Your task to perform on an android device: Search for the most popular books on Goodreads Image 0: 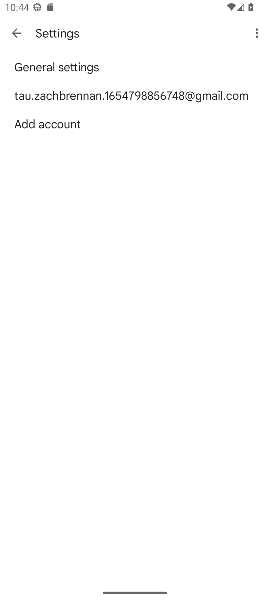
Step 0: press home button
Your task to perform on an android device: Search for the most popular books on Goodreads Image 1: 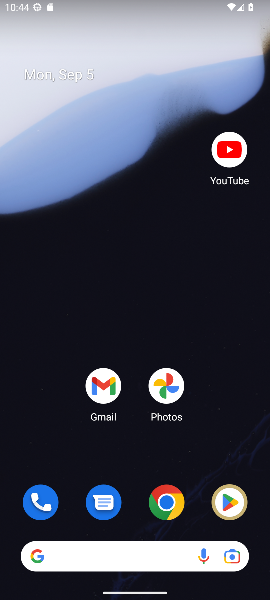
Step 1: drag from (239, 397) to (143, 17)
Your task to perform on an android device: Search for the most popular books on Goodreads Image 2: 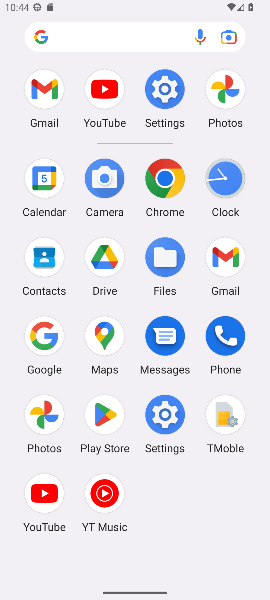
Step 2: click (39, 335)
Your task to perform on an android device: Search for the most popular books on Goodreads Image 3: 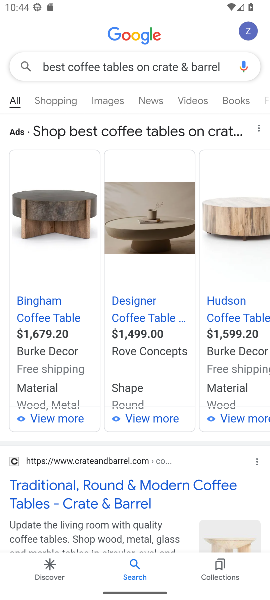
Step 3: press back button
Your task to perform on an android device: Search for the most popular books on Goodreads Image 4: 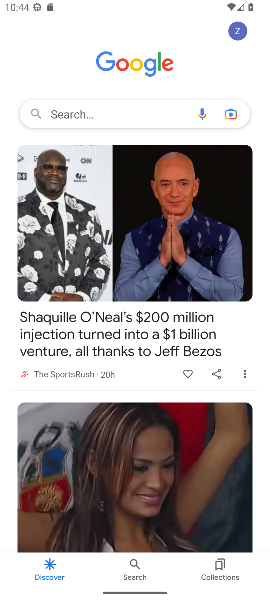
Step 4: click (114, 115)
Your task to perform on an android device: Search for the most popular books on Goodreads Image 5: 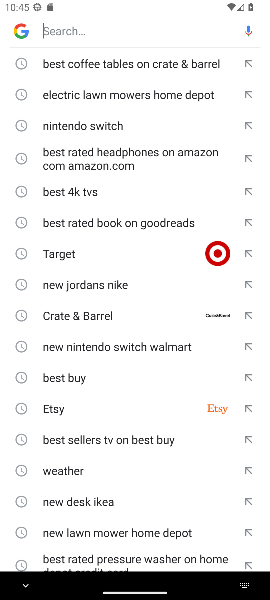
Step 5: type "books on Goodreads"
Your task to perform on an android device: Search for the most popular books on Goodreads Image 6: 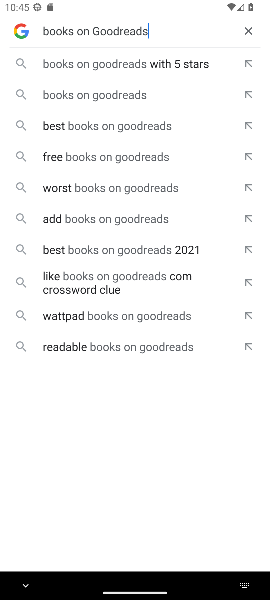
Step 6: click (90, 102)
Your task to perform on an android device: Search for the most popular books on Goodreads Image 7: 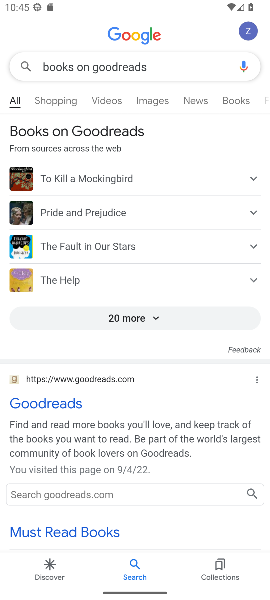
Step 7: task complete